Your task to perform on an android device: Check the news Image 0: 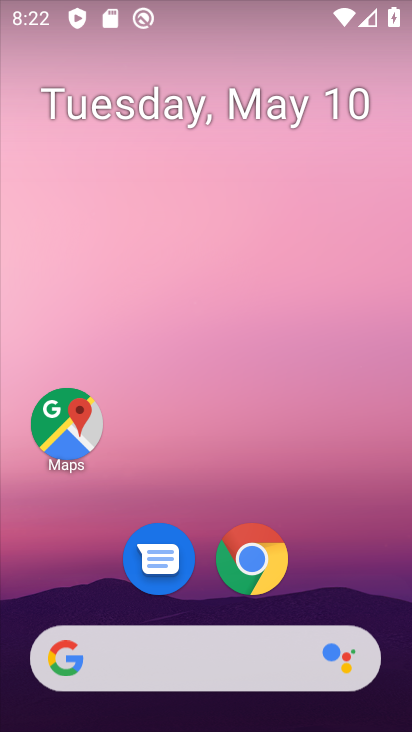
Step 0: drag from (305, 453) to (235, 5)
Your task to perform on an android device: Check the news Image 1: 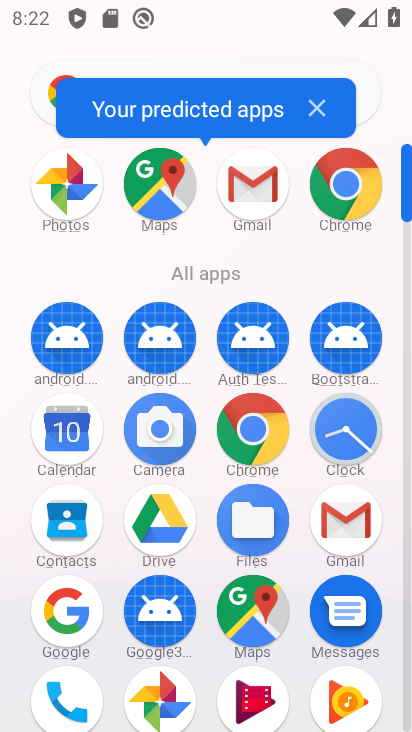
Step 1: drag from (16, 631) to (0, 356)
Your task to perform on an android device: Check the news Image 2: 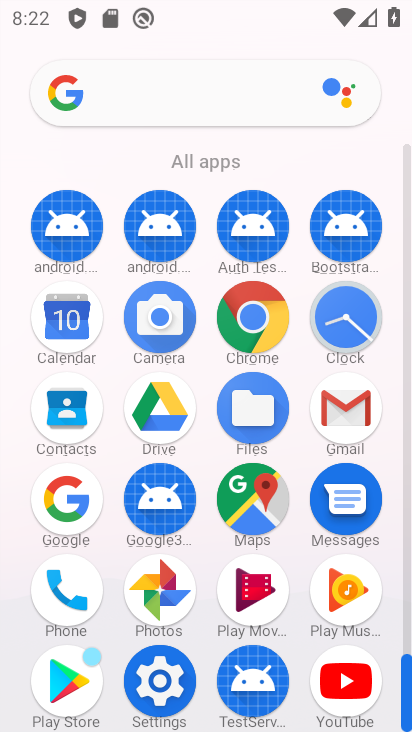
Step 2: click (255, 316)
Your task to perform on an android device: Check the news Image 3: 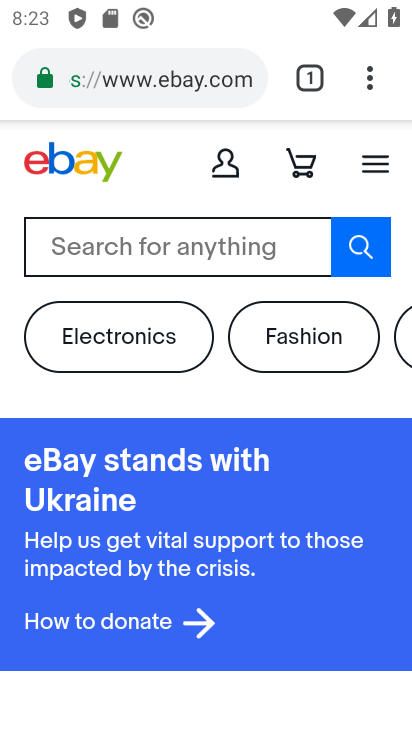
Step 3: drag from (365, 79) to (10, 31)
Your task to perform on an android device: Check the news Image 4: 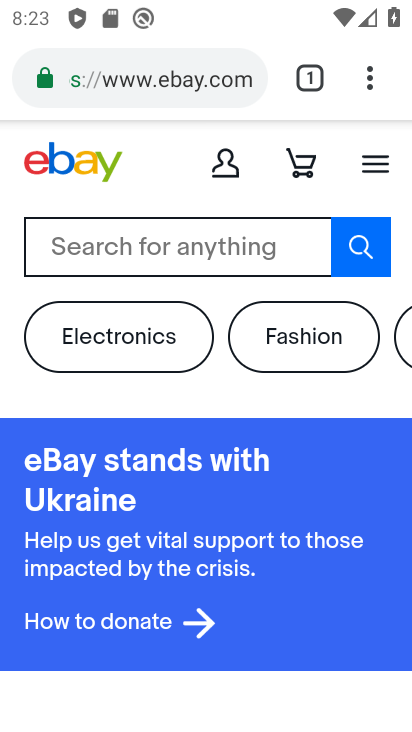
Step 4: click (136, 76)
Your task to perform on an android device: Check the news Image 5: 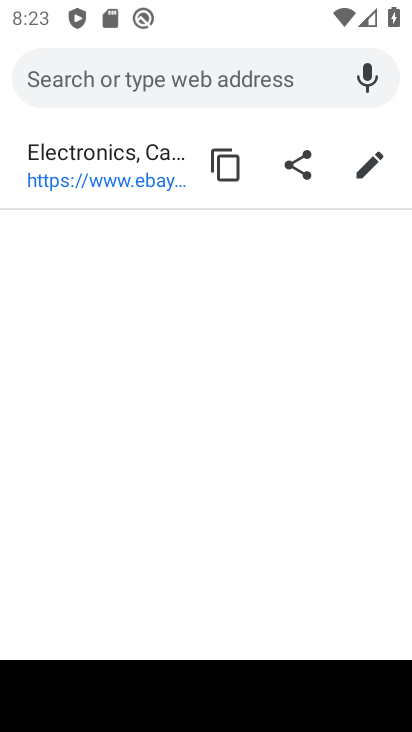
Step 5: type "Check the news"
Your task to perform on an android device: Check the news Image 6: 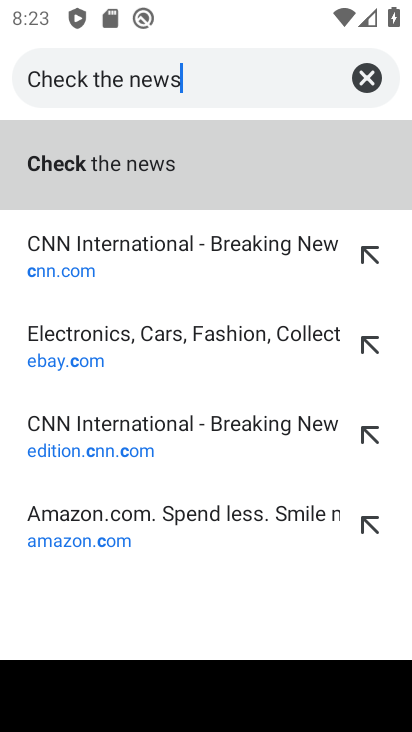
Step 6: type ""
Your task to perform on an android device: Check the news Image 7: 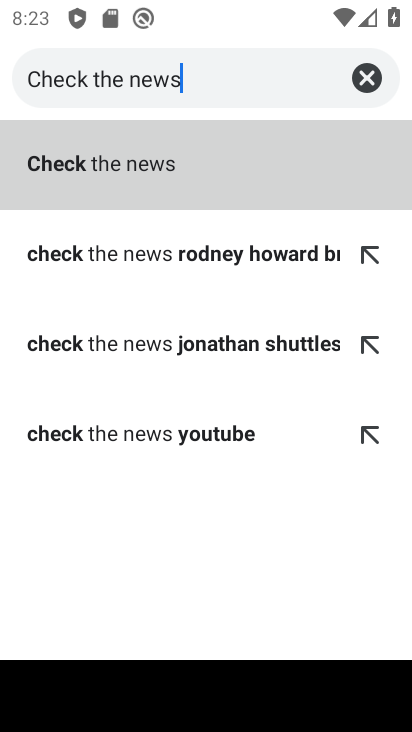
Step 7: click (161, 163)
Your task to perform on an android device: Check the news Image 8: 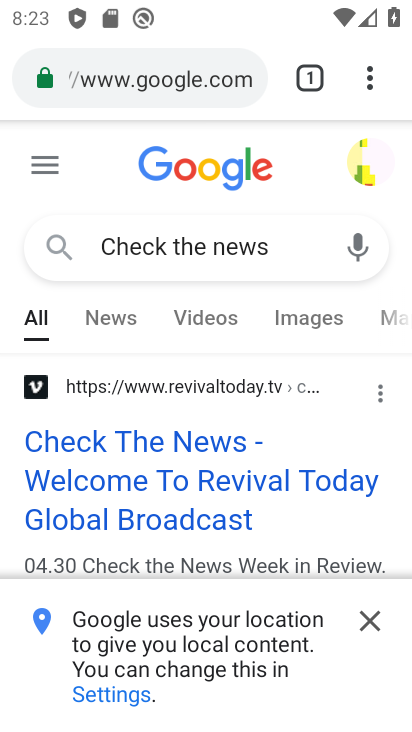
Step 8: click (109, 318)
Your task to perform on an android device: Check the news Image 9: 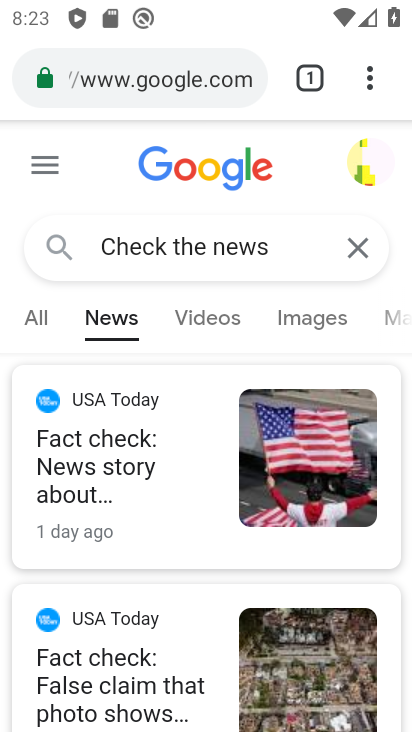
Step 9: task complete